Your task to perform on an android device: Open Yahoo.com Image 0: 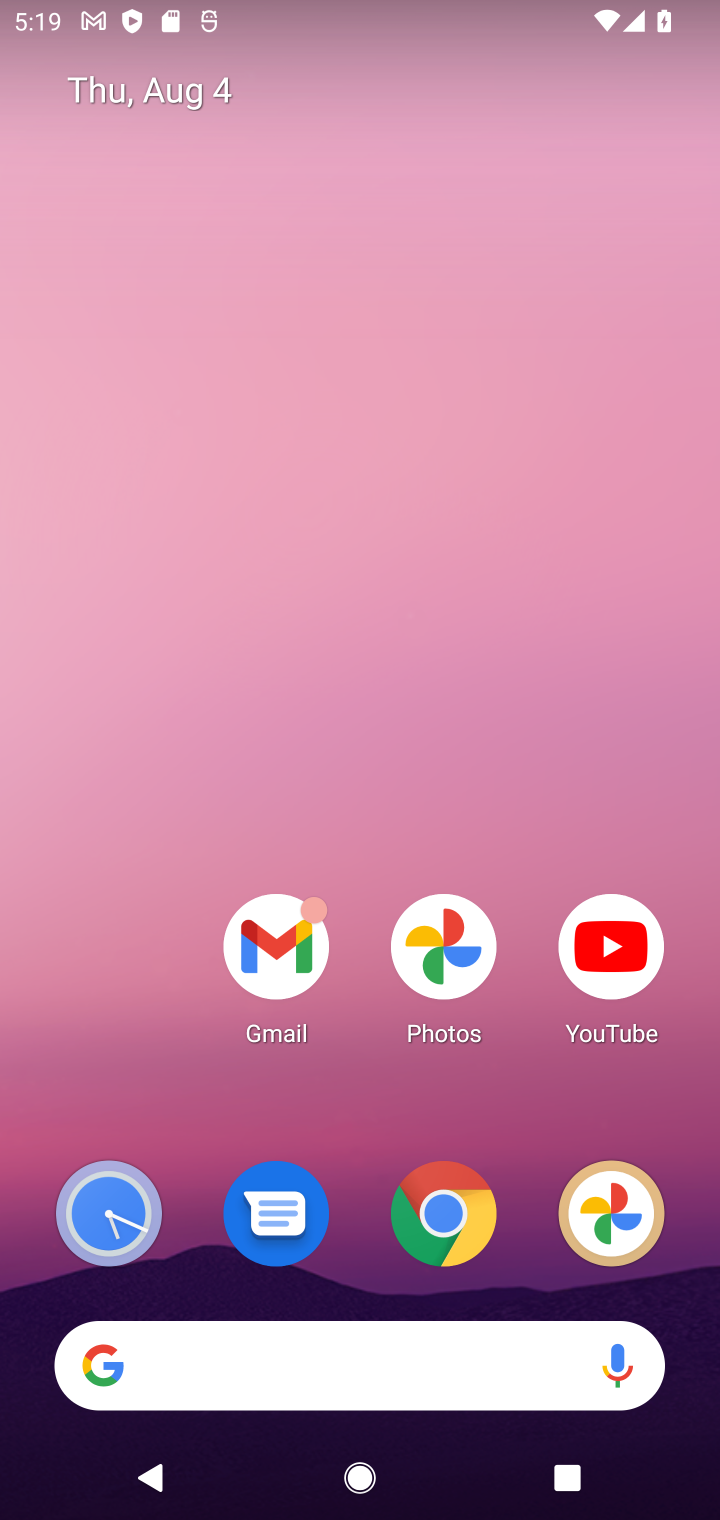
Step 0: click (441, 1209)
Your task to perform on an android device: Open Yahoo.com Image 1: 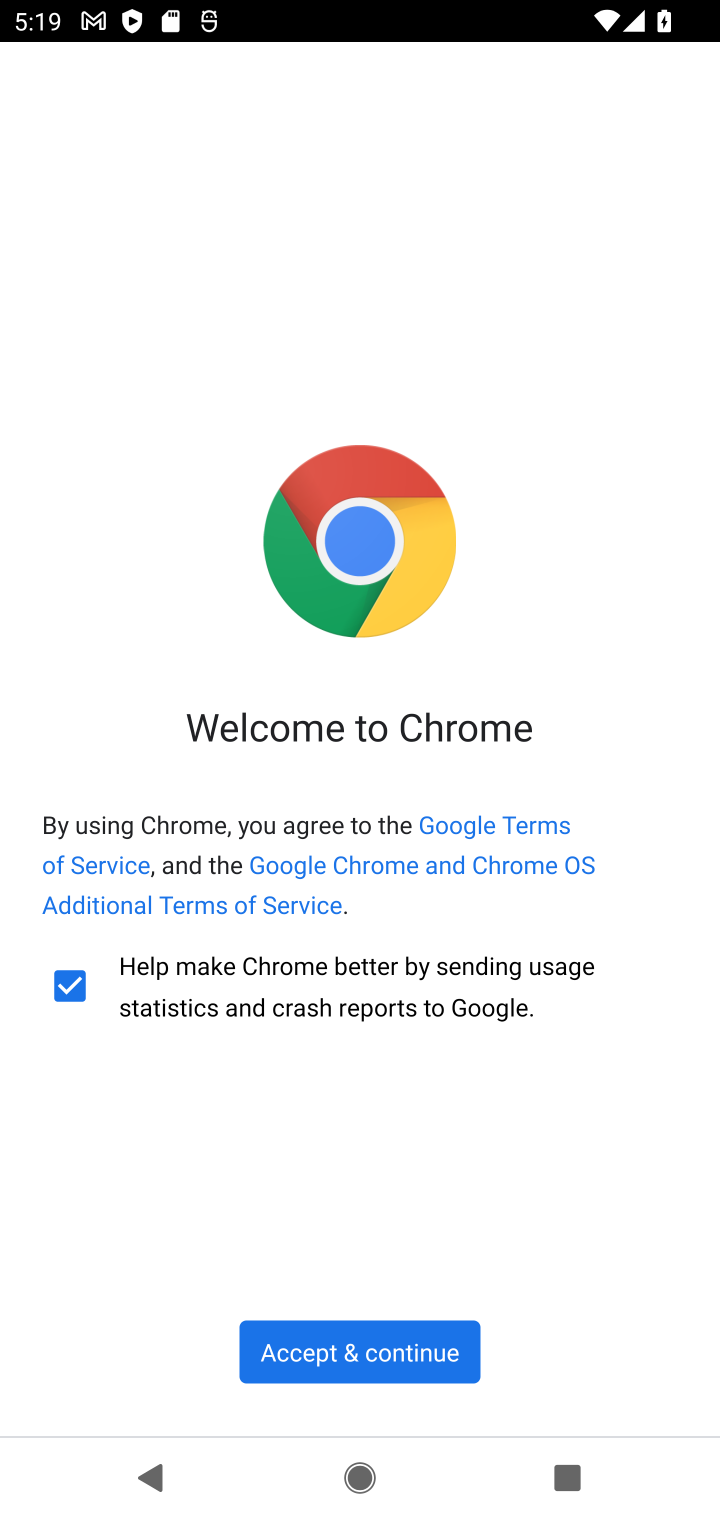
Step 1: click (302, 1342)
Your task to perform on an android device: Open Yahoo.com Image 2: 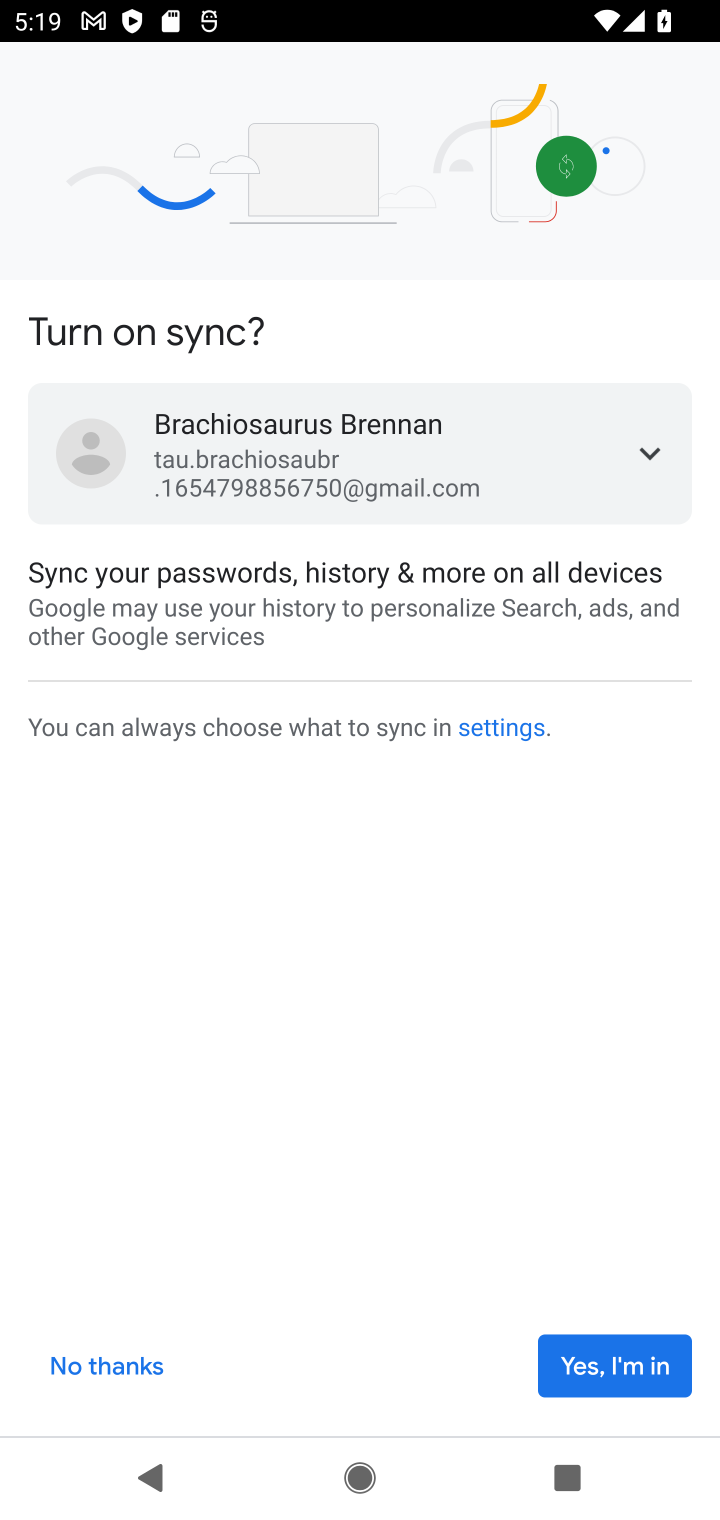
Step 2: click (598, 1370)
Your task to perform on an android device: Open Yahoo.com Image 3: 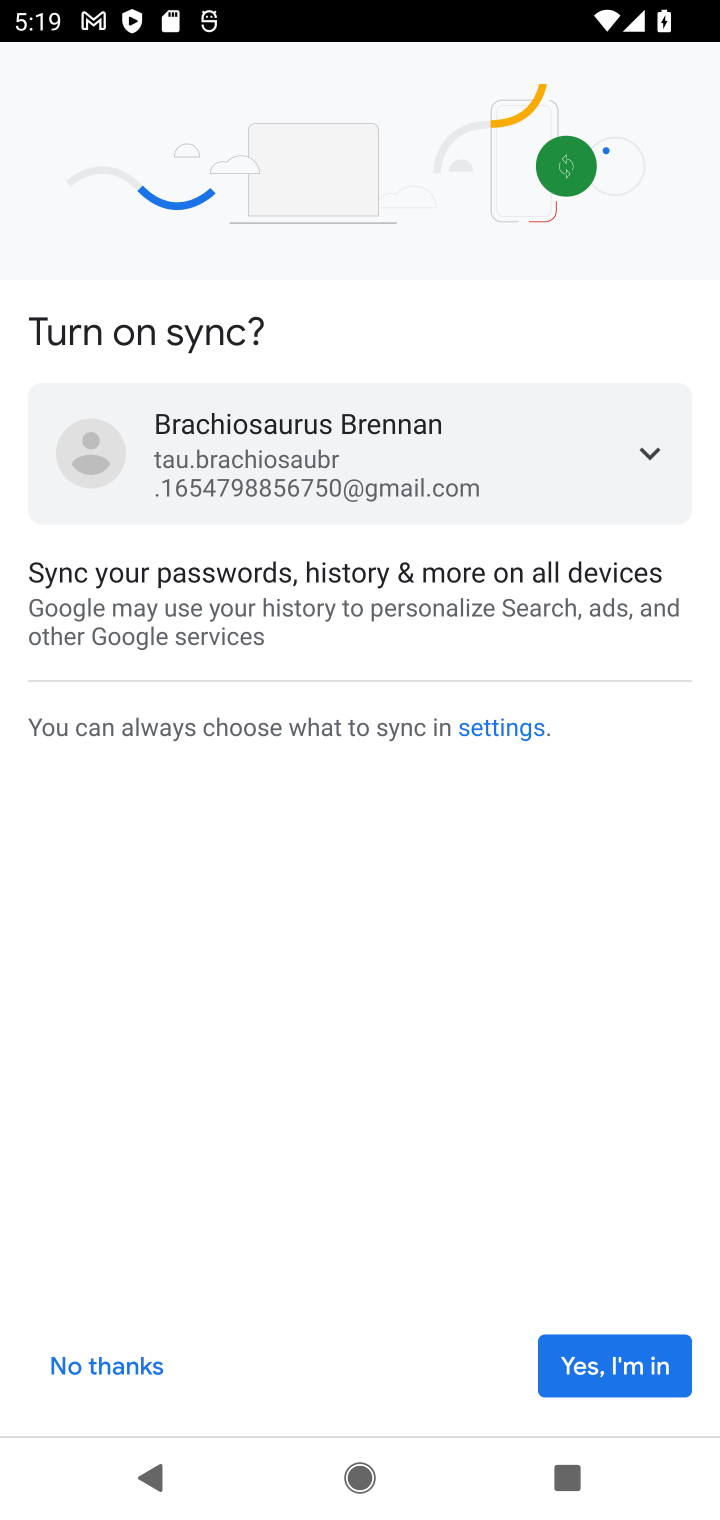
Step 3: click (589, 1360)
Your task to perform on an android device: Open Yahoo.com Image 4: 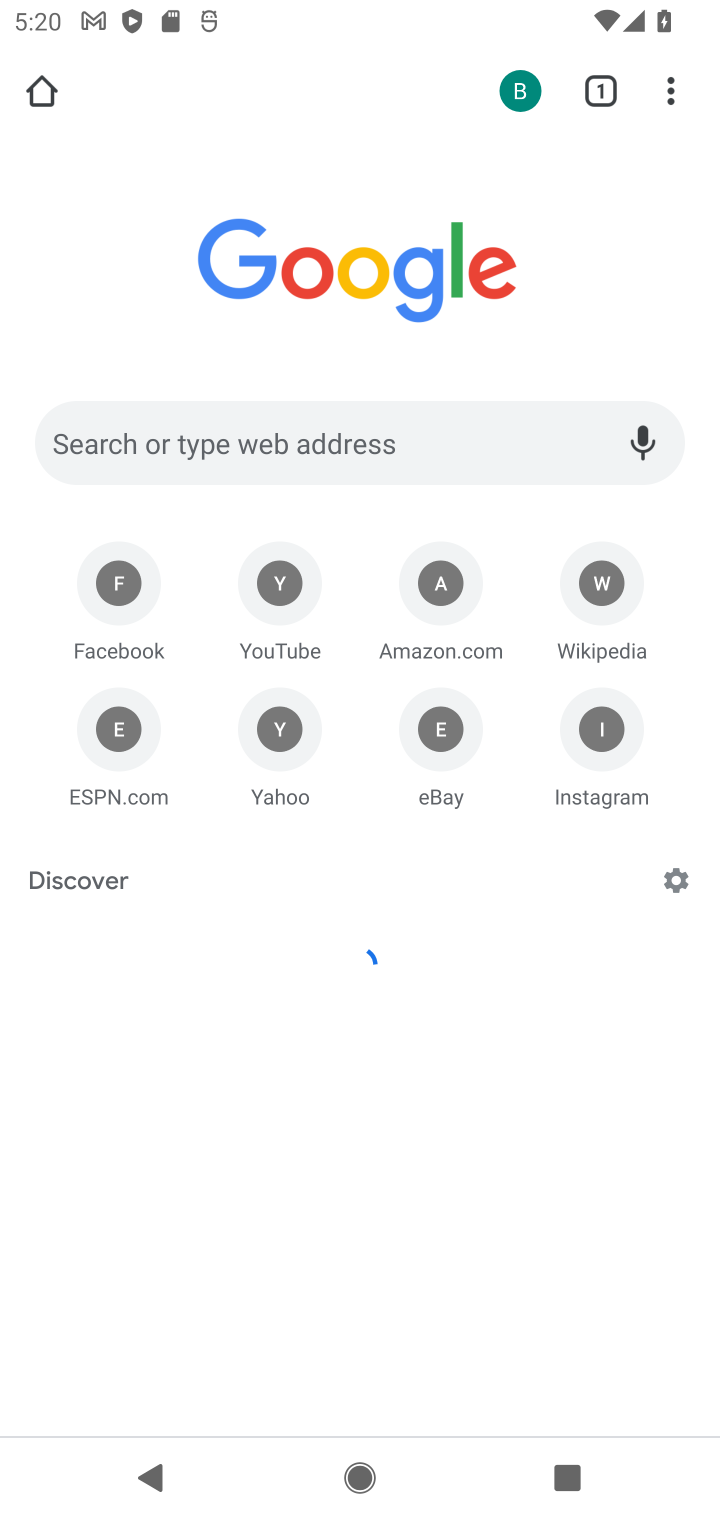
Step 4: click (282, 749)
Your task to perform on an android device: Open Yahoo.com Image 5: 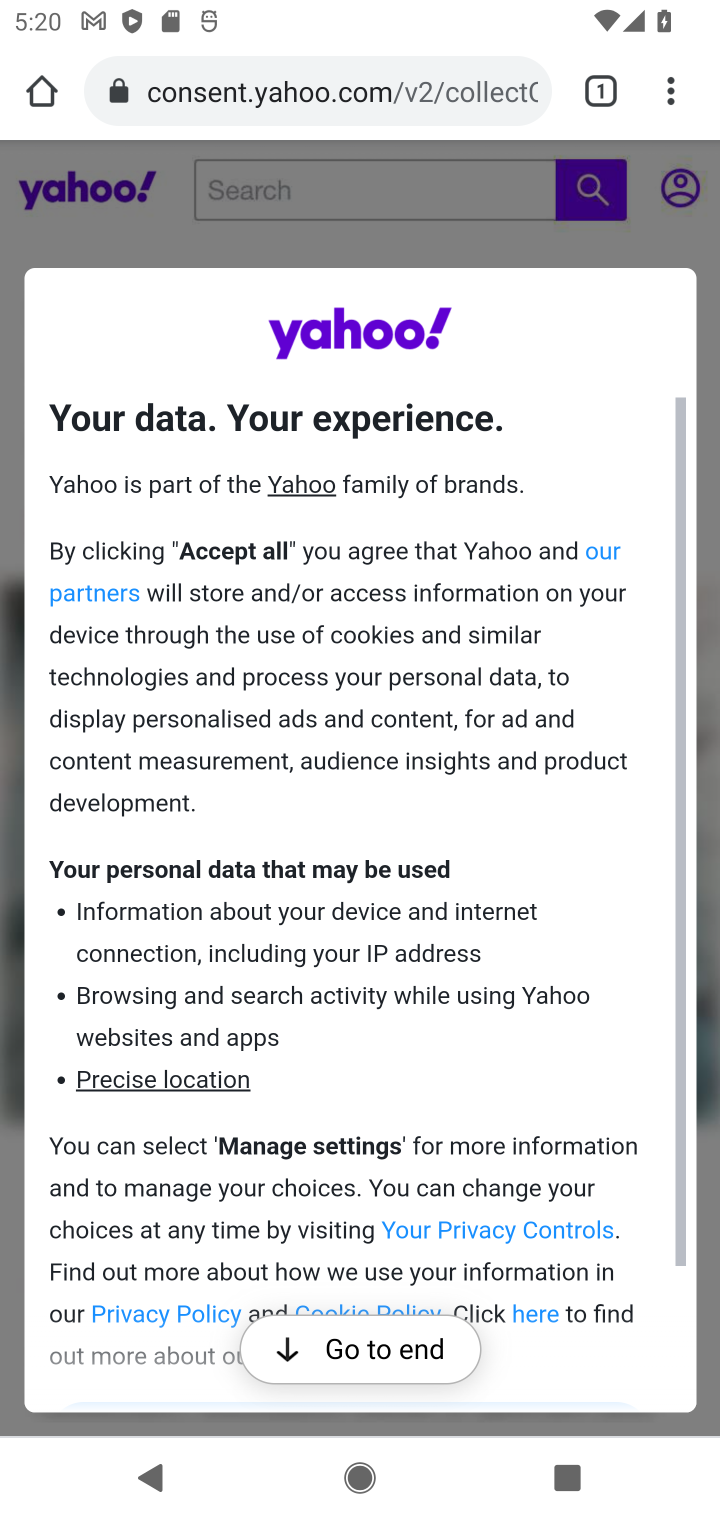
Step 5: task complete